Your task to perform on an android device: open app "DoorDash - Dasher" (install if not already installed) Image 0: 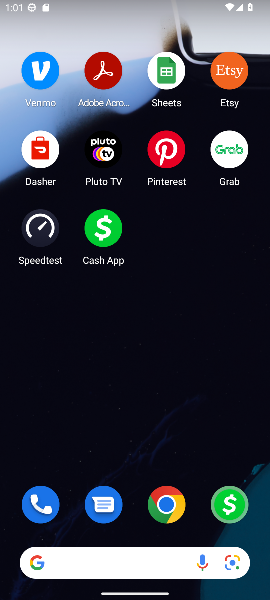
Step 0: drag from (141, 562) to (161, 83)
Your task to perform on an android device: open app "DoorDash - Dasher" (install if not already installed) Image 1: 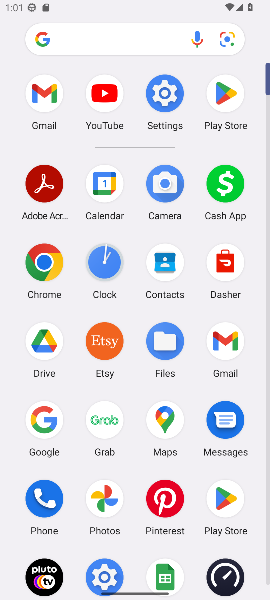
Step 1: click (236, 98)
Your task to perform on an android device: open app "DoorDash - Dasher" (install if not already installed) Image 2: 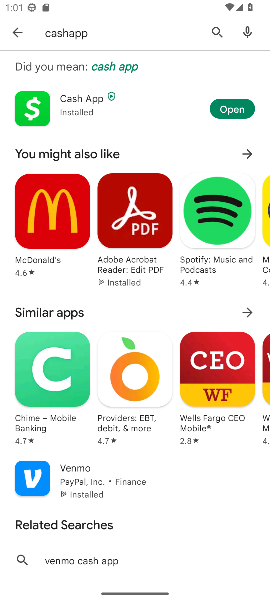
Step 2: click (218, 28)
Your task to perform on an android device: open app "DoorDash - Dasher" (install if not already installed) Image 3: 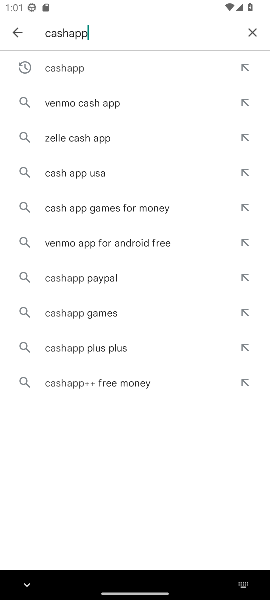
Step 3: click (257, 28)
Your task to perform on an android device: open app "DoorDash - Dasher" (install if not already installed) Image 4: 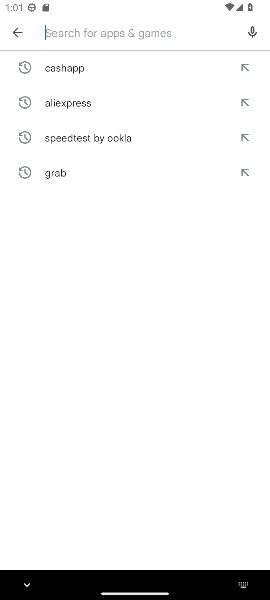
Step 4: type "doordash - dasher"
Your task to perform on an android device: open app "DoorDash - Dasher" (install if not already installed) Image 5: 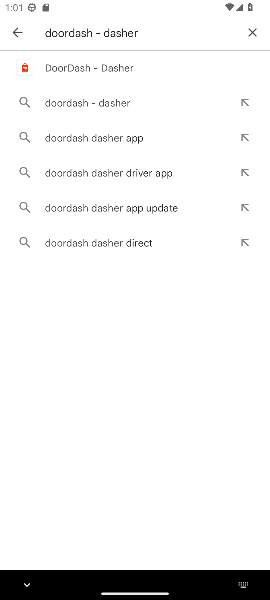
Step 5: click (167, 60)
Your task to perform on an android device: open app "DoorDash - Dasher" (install if not already installed) Image 6: 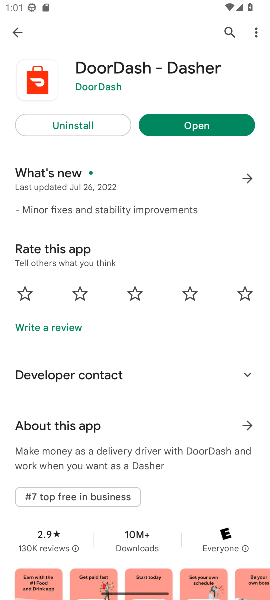
Step 6: click (209, 121)
Your task to perform on an android device: open app "DoorDash - Dasher" (install if not already installed) Image 7: 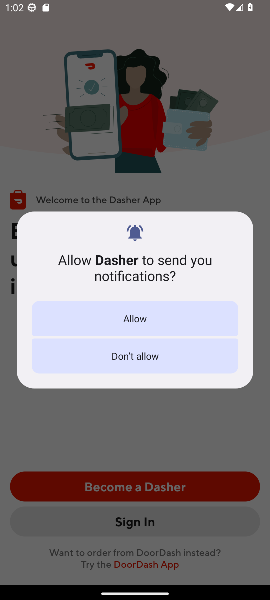
Step 7: task complete